Your task to perform on an android device: toggle pop-ups in chrome Image 0: 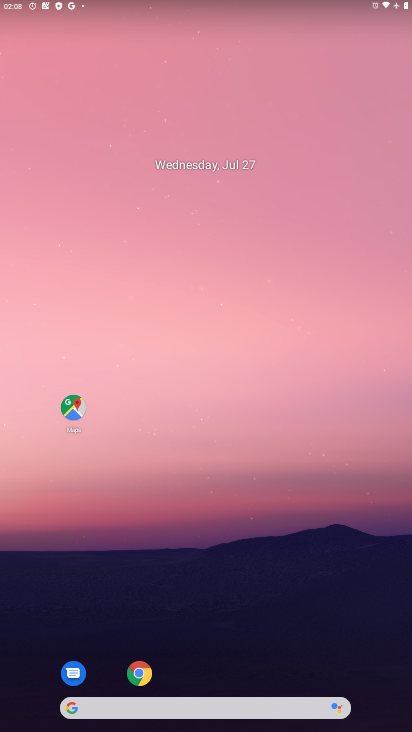
Step 0: click (147, 678)
Your task to perform on an android device: toggle pop-ups in chrome Image 1: 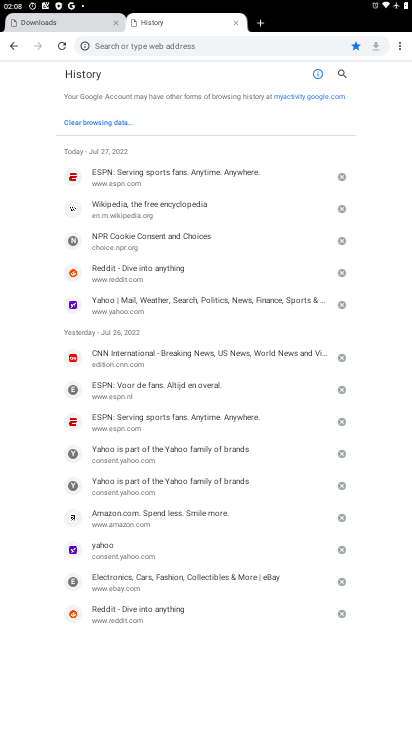
Step 1: drag from (401, 50) to (301, 213)
Your task to perform on an android device: toggle pop-ups in chrome Image 2: 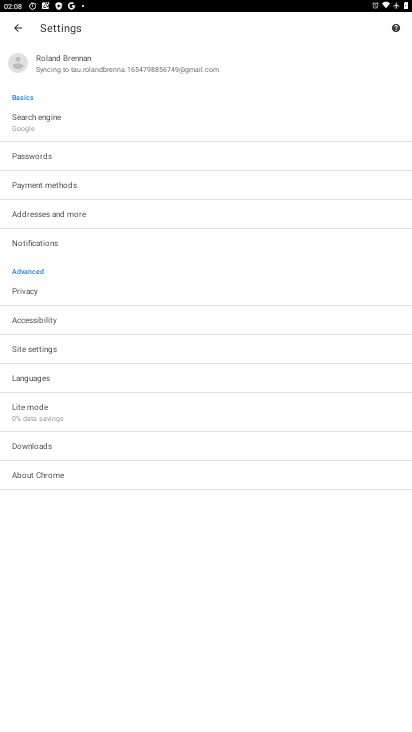
Step 2: click (37, 349)
Your task to perform on an android device: toggle pop-ups in chrome Image 3: 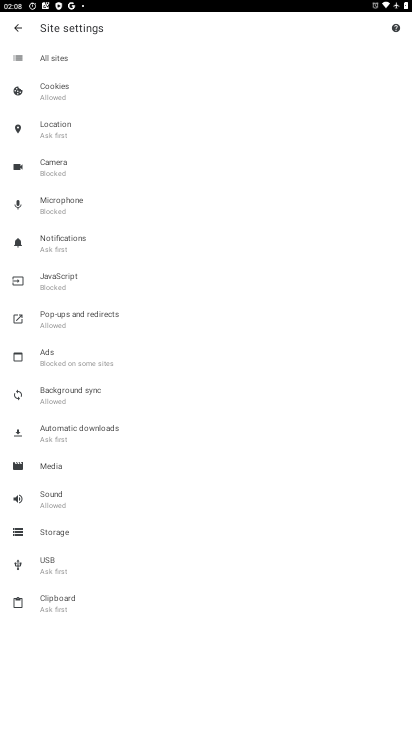
Step 3: click (59, 316)
Your task to perform on an android device: toggle pop-ups in chrome Image 4: 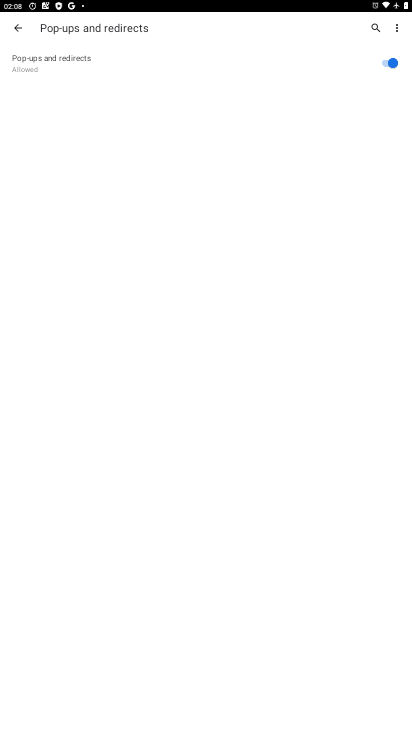
Step 4: click (393, 69)
Your task to perform on an android device: toggle pop-ups in chrome Image 5: 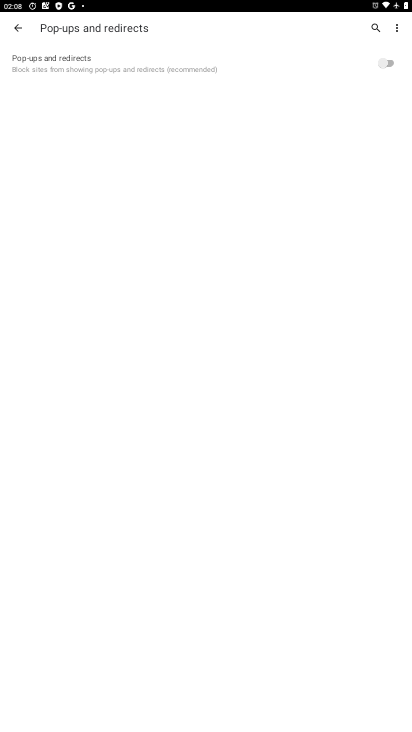
Step 5: task complete